Your task to perform on an android device: Is it going to rain today? Image 0: 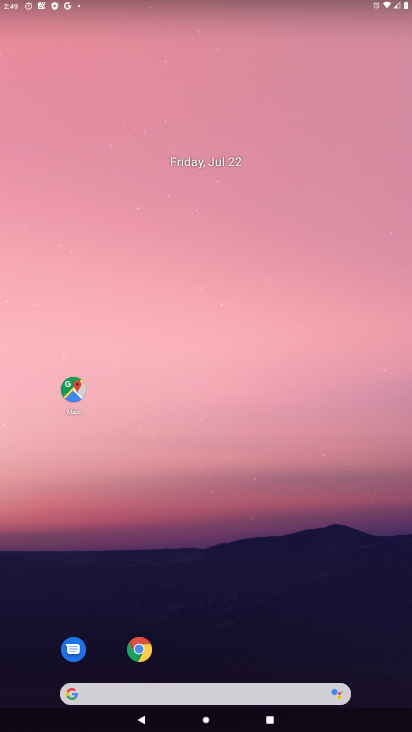
Step 0: drag from (225, 498) to (218, 3)
Your task to perform on an android device: Is it going to rain today? Image 1: 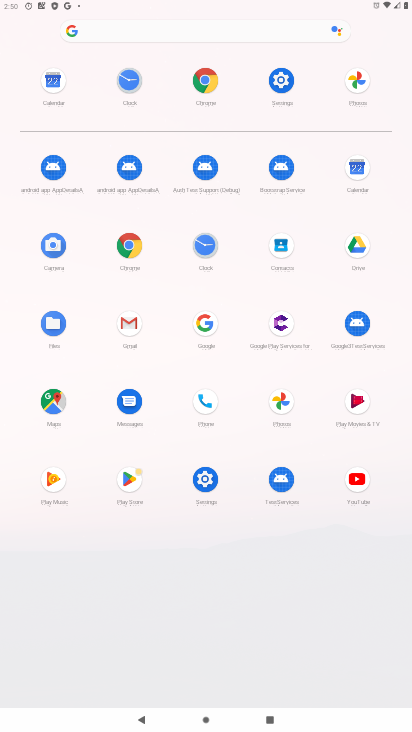
Step 1: click (213, 76)
Your task to perform on an android device: Is it going to rain today? Image 2: 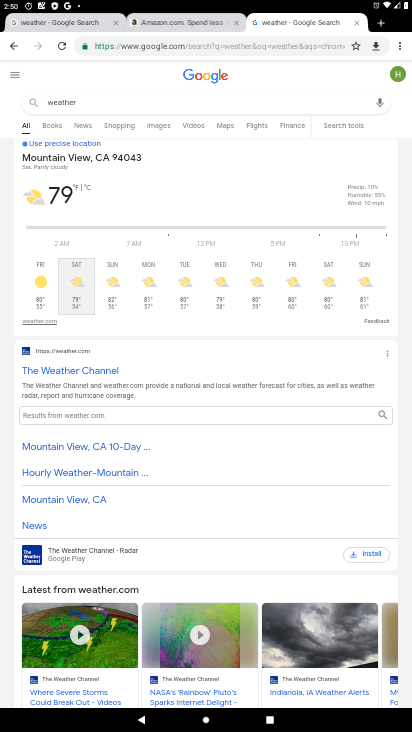
Step 2: click (36, 288)
Your task to perform on an android device: Is it going to rain today? Image 3: 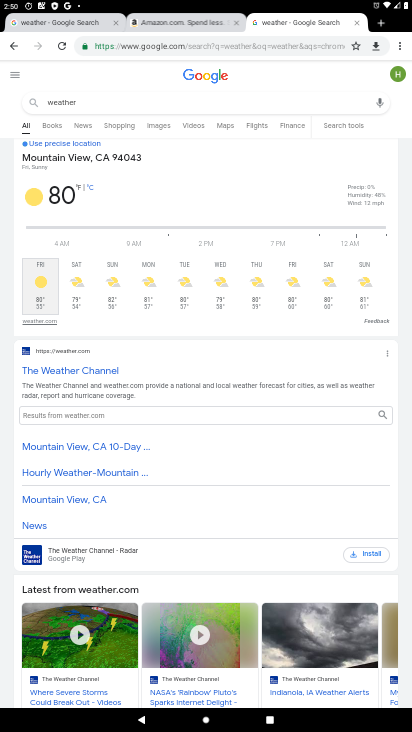
Step 3: task complete